Your task to perform on an android device: open wifi settings Image 0: 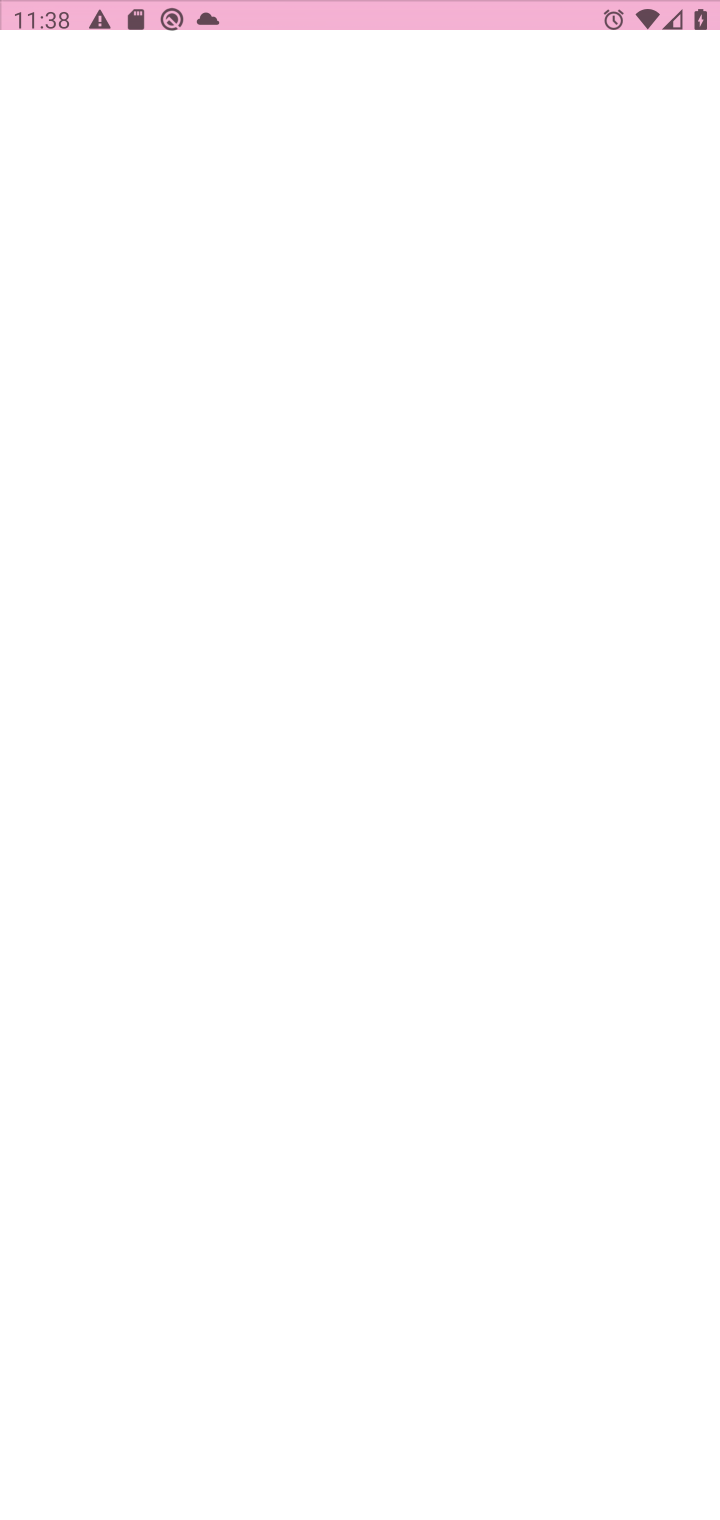
Step 0: press home button
Your task to perform on an android device: open wifi settings Image 1: 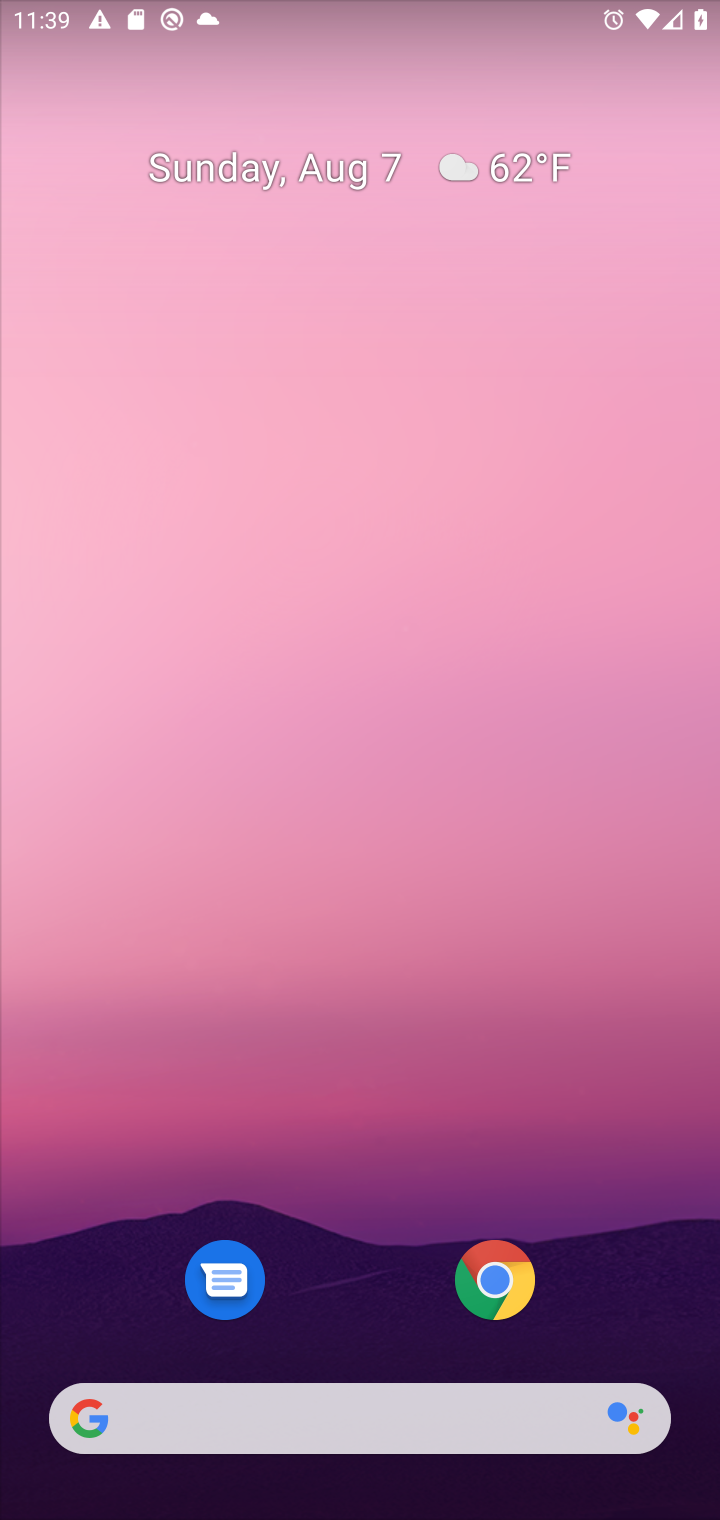
Step 1: drag from (364, 1044) to (350, 261)
Your task to perform on an android device: open wifi settings Image 2: 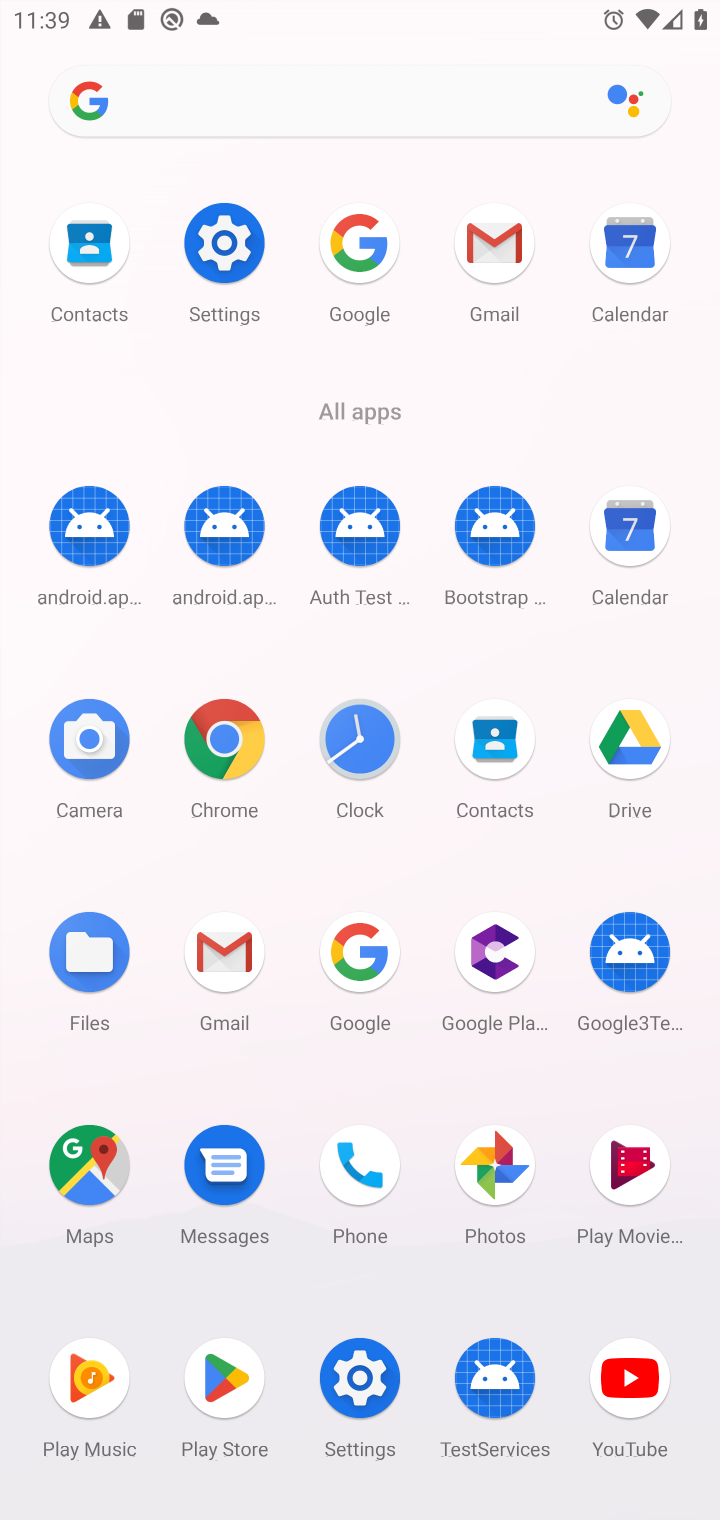
Step 2: click (231, 249)
Your task to perform on an android device: open wifi settings Image 3: 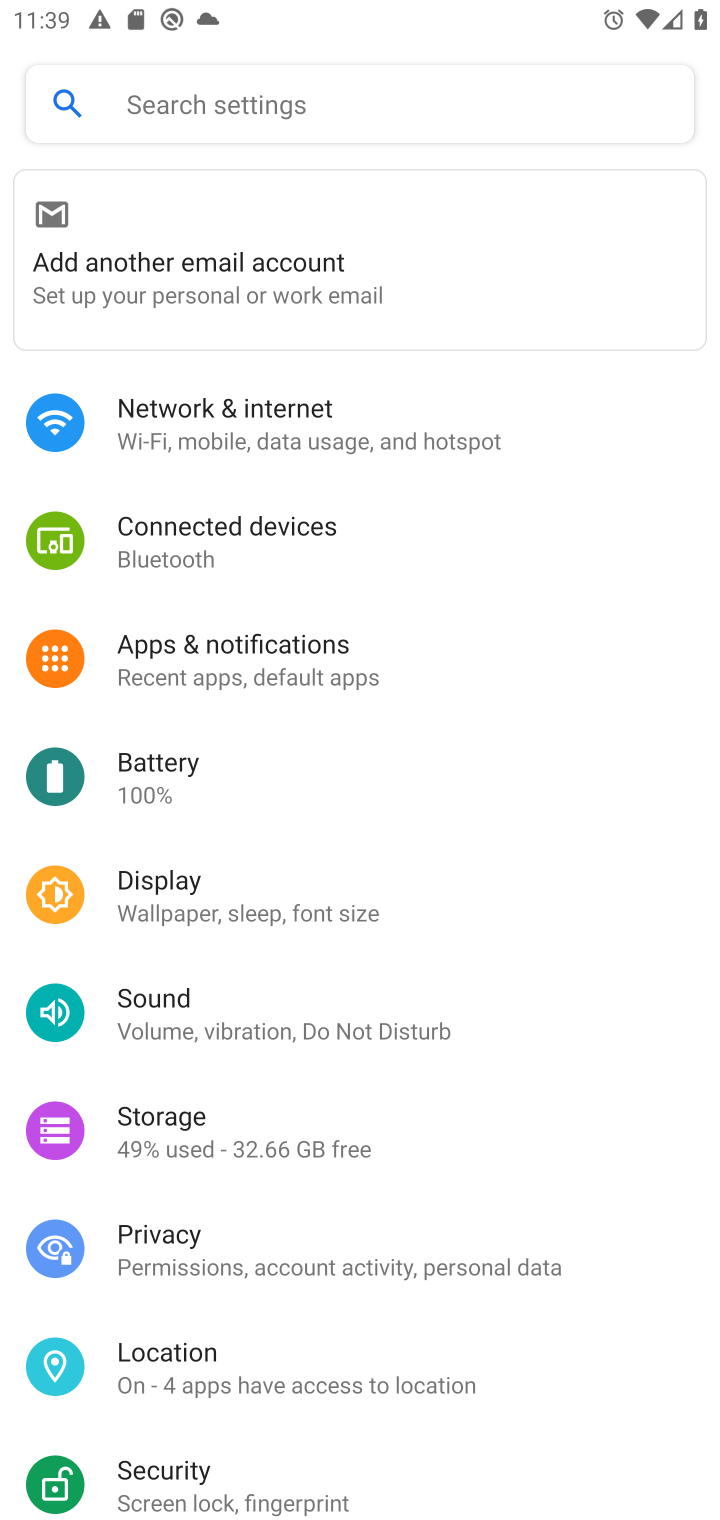
Step 3: click (219, 420)
Your task to perform on an android device: open wifi settings Image 4: 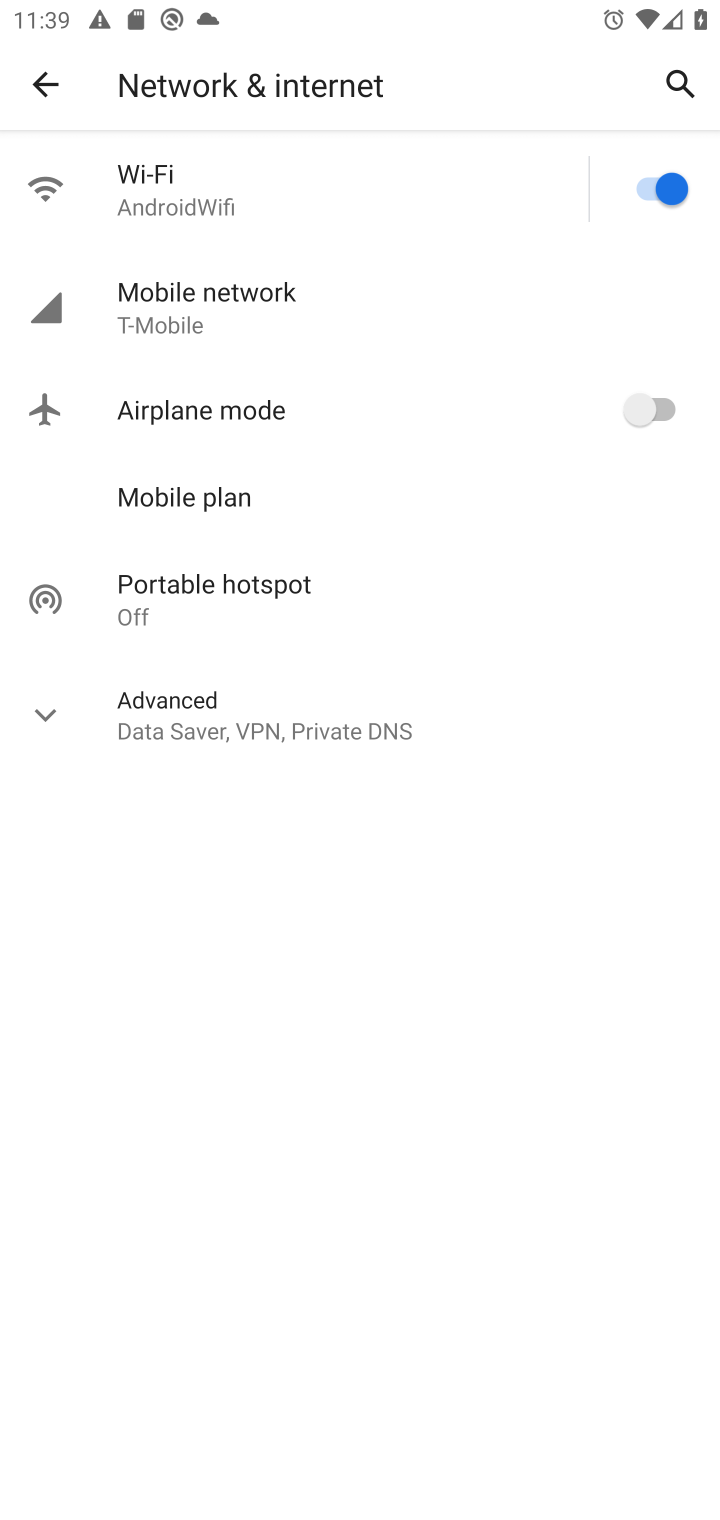
Step 4: click (140, 202)
Your task to perform on an android device: open wifi settings Image 5: 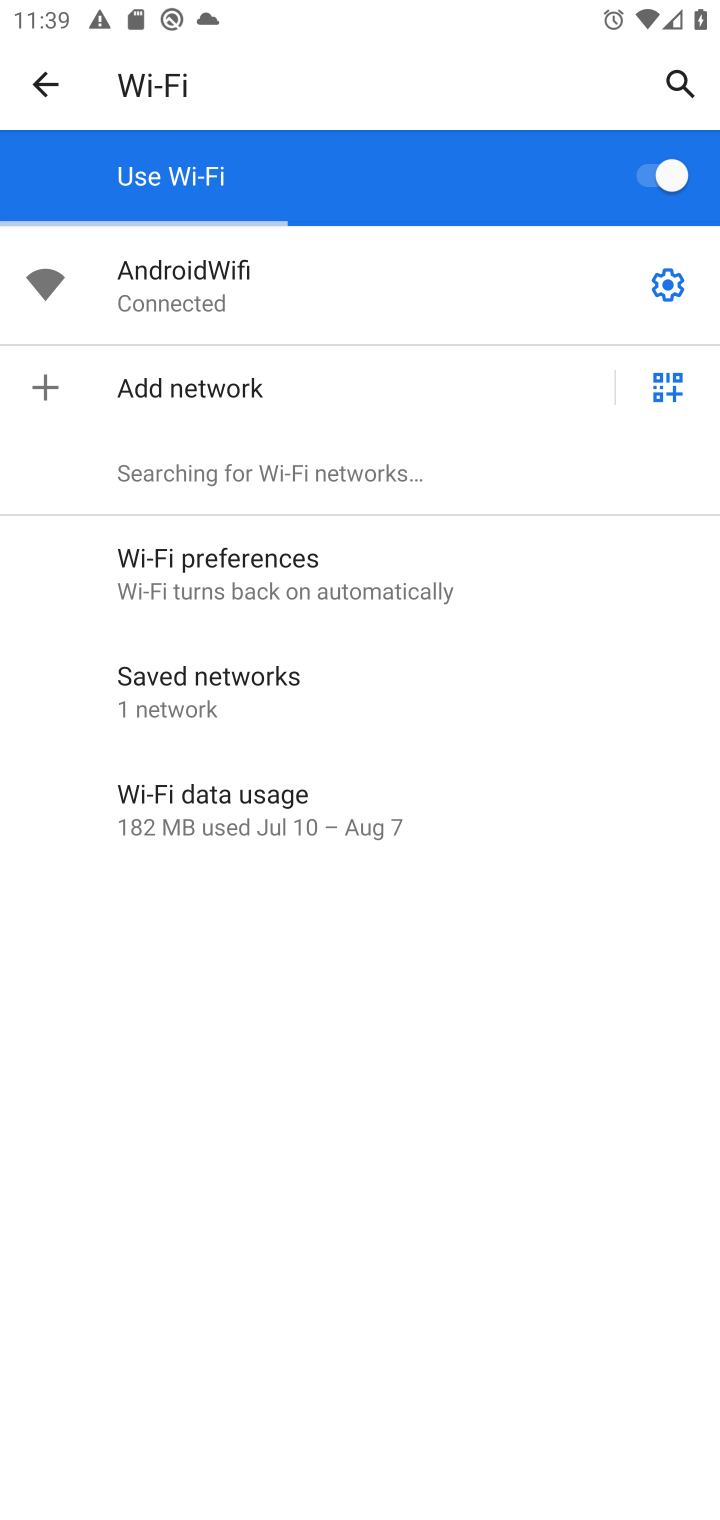
Step 5: task complete